Your task to perform on an android device: turn on the 12-hour format for clock Image 0: 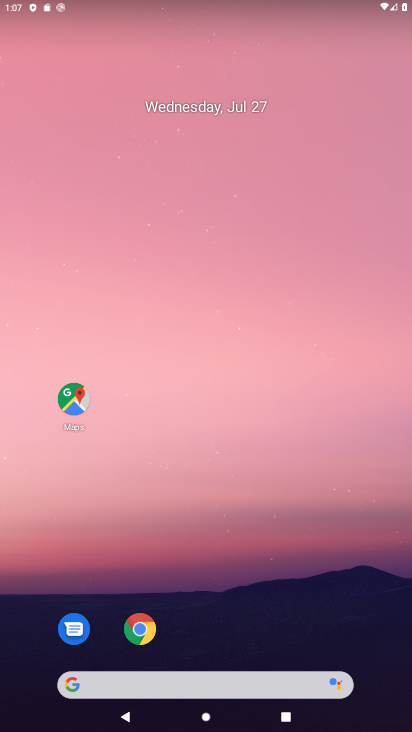
Step 0: drag from (233, 606) to (236, 53)
Your task to perform on an android device: turn on the 12-hour format for clock Image 1: 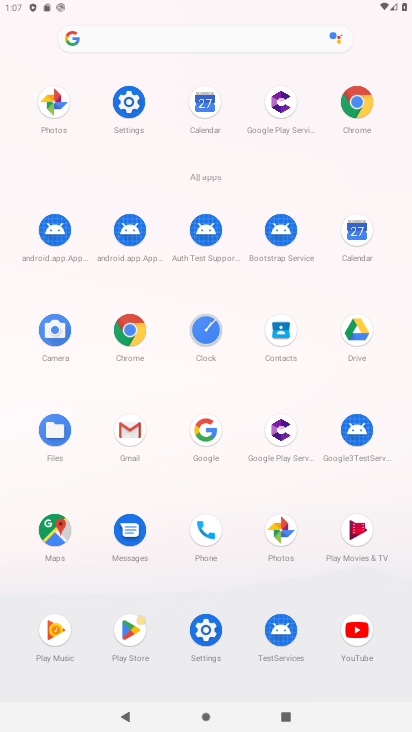
Step 1: click (123, 99)
Your task to perform on an android device: turn on the 12-hour format for clock Image 2: 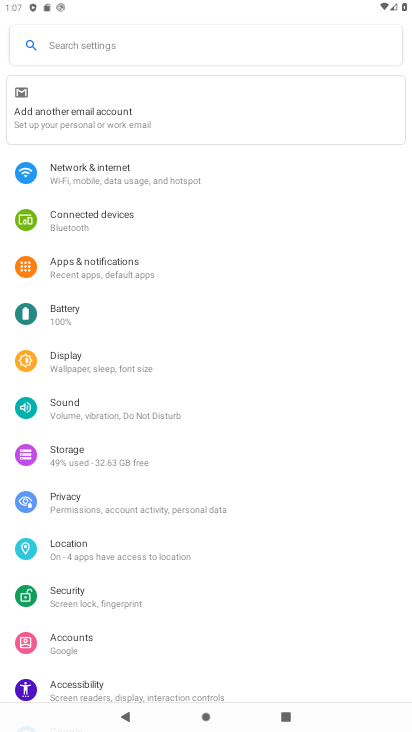
Step 2: drag from (316, 609) to (278, 154)
Your task to perform on an android device: turn on the 12-hour format for clock Image 3: 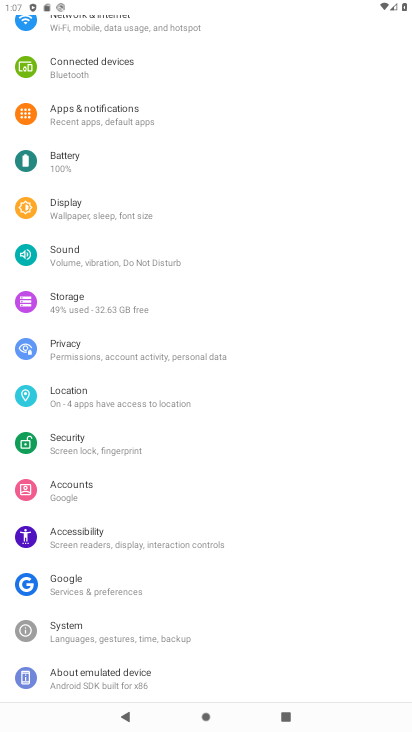
Step 3: click (141, 636)
Your task to perform on an android device: turn on the 12-hour format for clock Image 4: 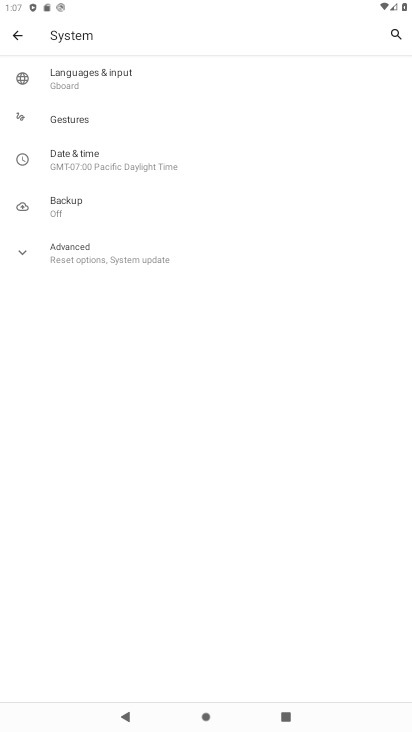
Step 4: click (76, 164)
Your task to perform on an android device: turn on the 12-hour format for clock Image 5: 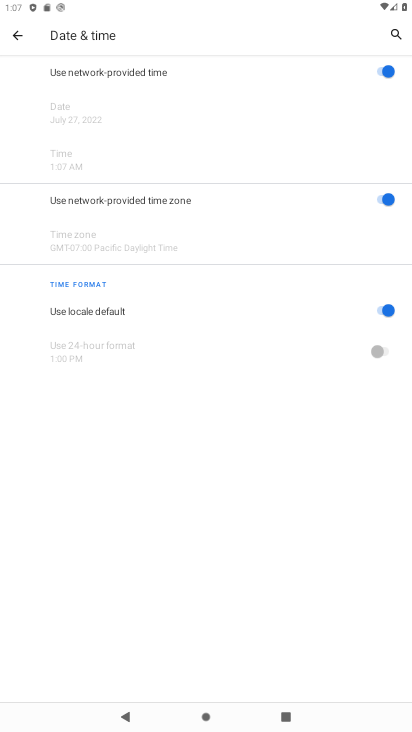
Step 5: click (386, 308)
Your task to perform on an android device: turn on the 12-hour format for clock Image 6: 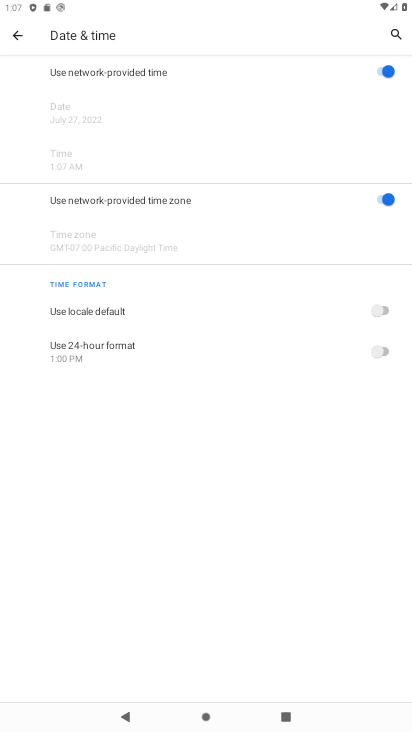
Step 6: click (380, 309)
Your task to perform on an android device: turn on the 12-hour format for clock Image 7: 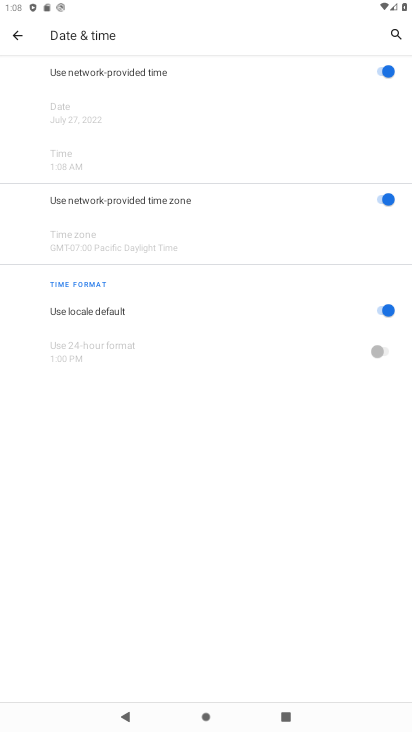
Step 7: task complete